Your task to perform on an android device: toggle translation in the chrome app Image 0: 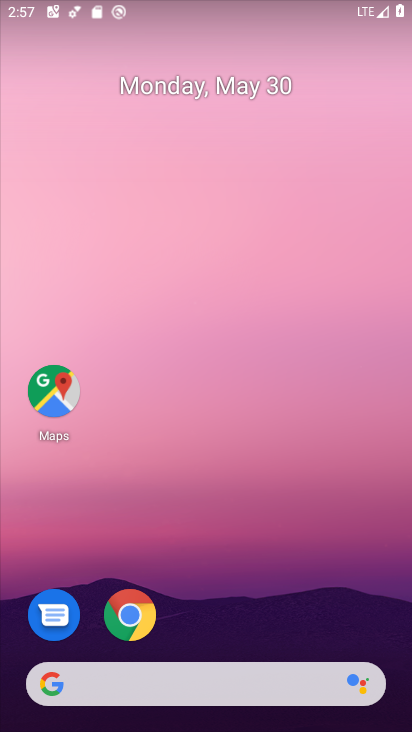
Step 0: click (130, 615)
Your task to perform on an android device: toggle translation in the chrome app Image 1: 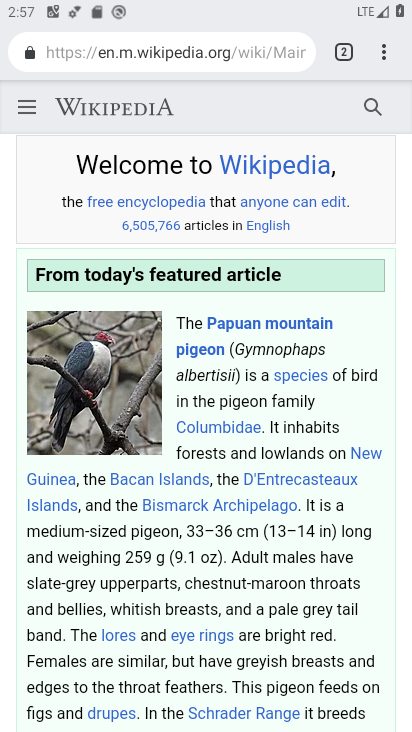
Step 1: click (381, 51)
Your task to perform on an android device: toggle translation in the chrome app Image 2: 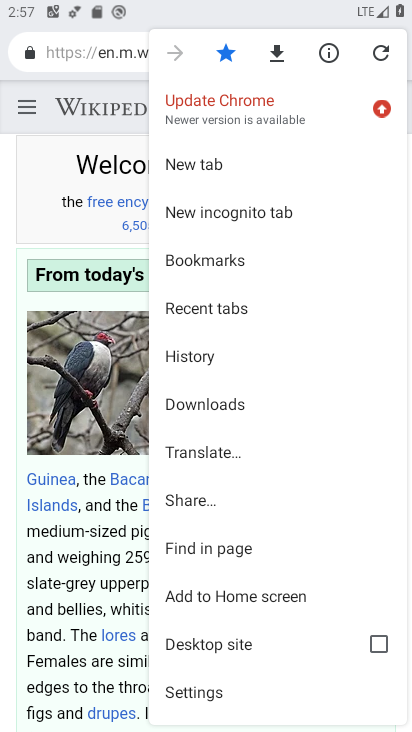
Step 2: click (239, 685)
Your task to perform on an android device: toggle translation in the chrome app Image 3: 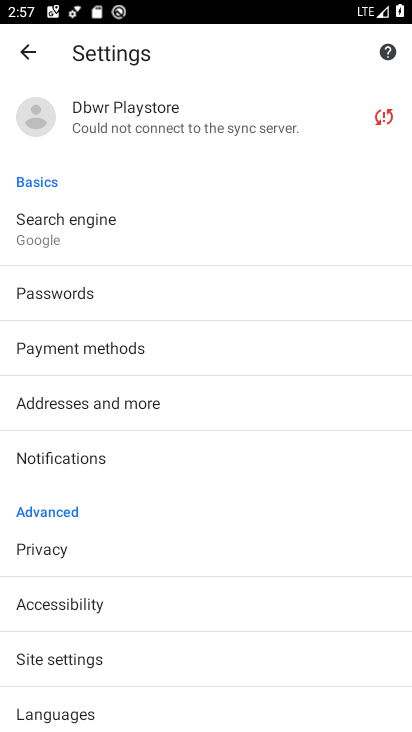
Step 3: drag from (254, 552) to (275, 339)
Your task to perform on an android device: toggle translation in the chrome app Image 4: 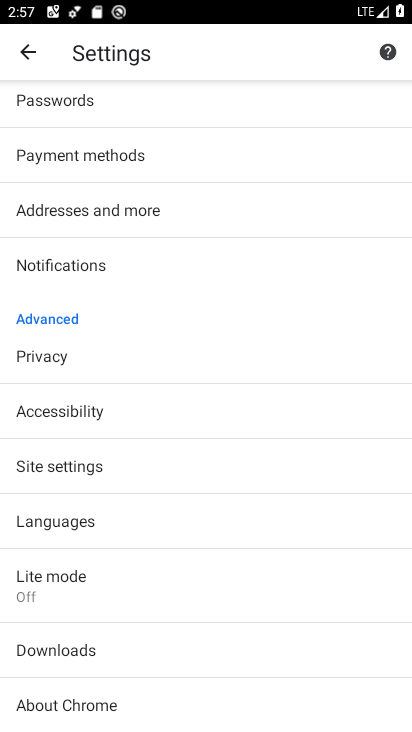
Step 4: click (217, 511)
Your task to perform on an android device: toggle translation in the chrome app Image 5: 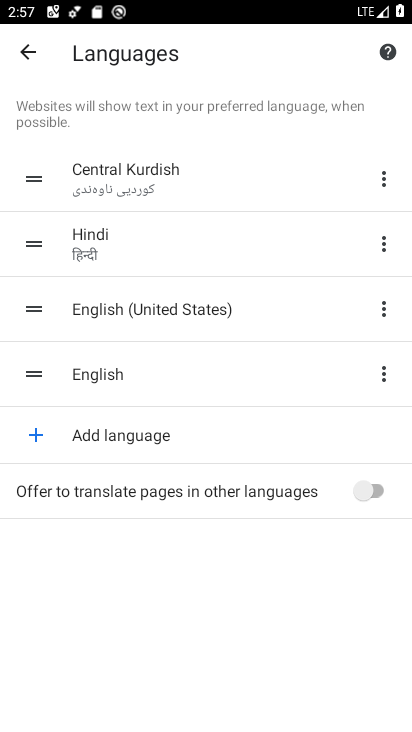
Step 5: click (367, 484)
Your task to perform on an android device: toggle translation in the chrome app Image 6: 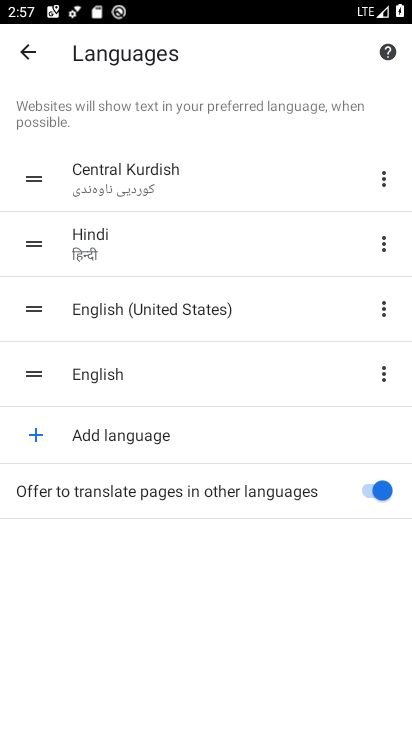
Step 6: task complete